Your task to perform on an android device: toggle priority inbox in the gmail app Image 0: 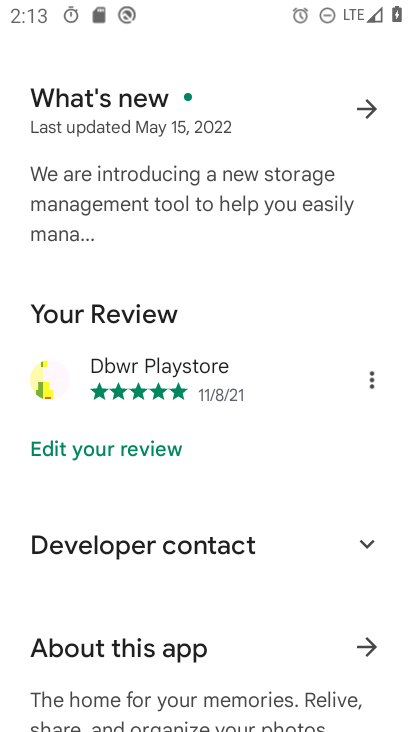
Step 0: press home button
Your task to perform on an android device: toggle priority inbox in the gmail app Image 1: 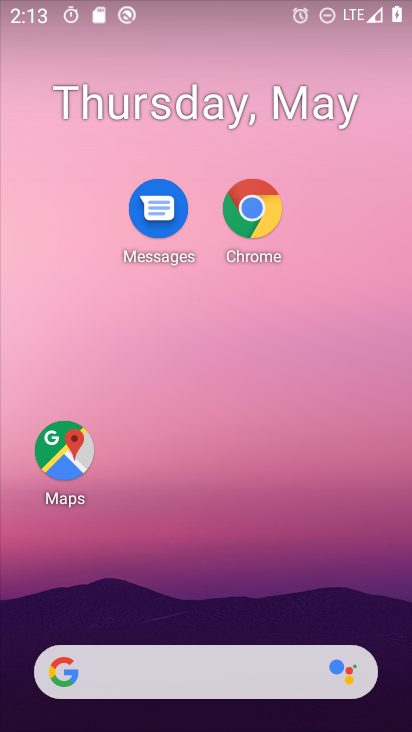
Step 1: click (187, 3)
Your task to perform on an android device: toggle priority inbox in the gmail app Image 2: 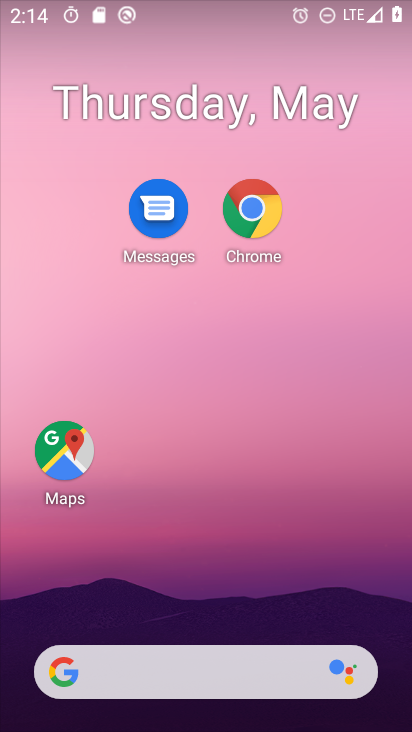
Step 2: drag from (169, 587) to (168, 137)
Your task to perform on an android device: toggle priority inbox in the gmail app Image 3: 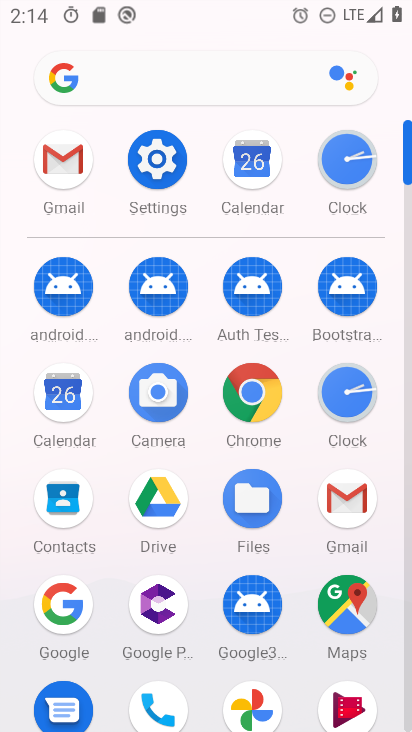
Step 3: drag from (177, 570) to (207, 144)
Your task to perform on an android device: toggle priority inbox in the gmail app Image 4: 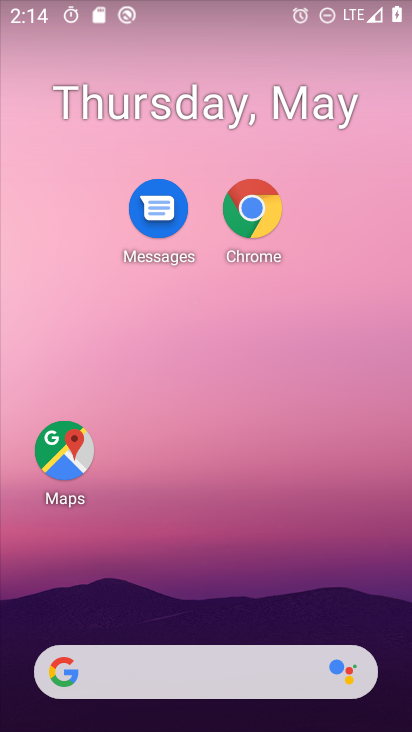
Step 4: click (48, 179)
Your task to perform on an android device: toggle priority inbox in the gmail app Image 5: 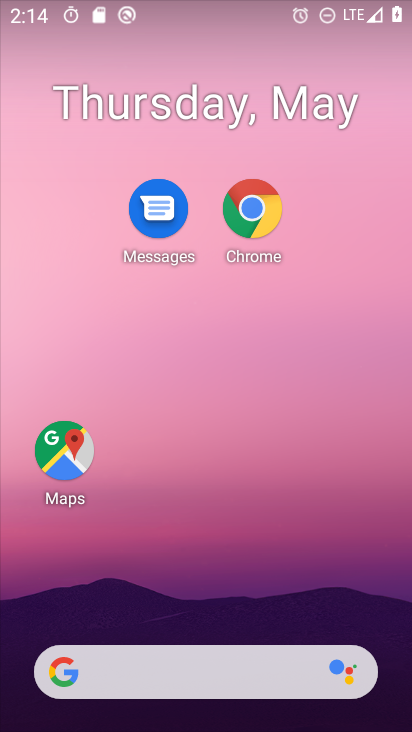
Step 5: drag from (193, 586) to (227, 69)
Your task to perform on an android device: toggle priority inbox in the gmail app Image 6: 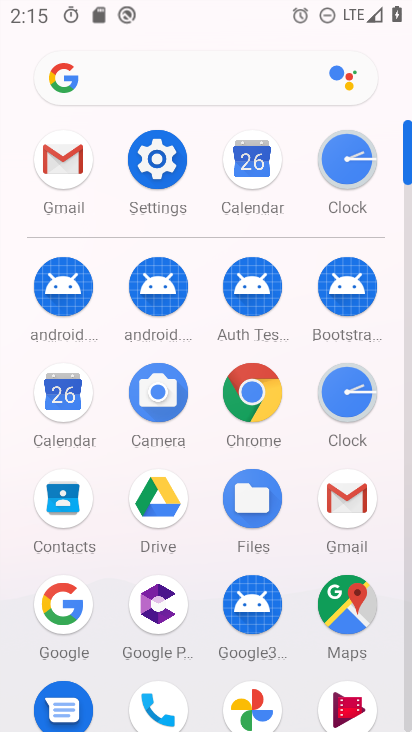
Step 6: click (54, 160)
Your task to perform on an android device: toggle priority inbox in the gmail app Image 7: 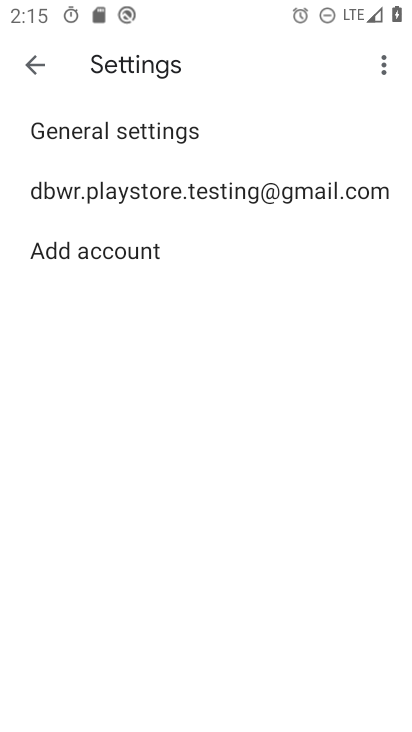
Step 7: click (95, 179)
Your task to perform on an android device: toggle priority inbox in the gmail app Image 8: 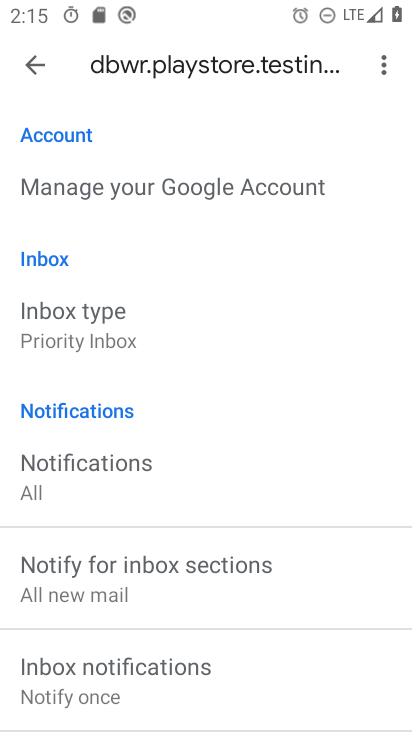
Step 8: click (91, 347)
Your task to perform on an android device: toggle priority inbox in the gmail app Image 9: 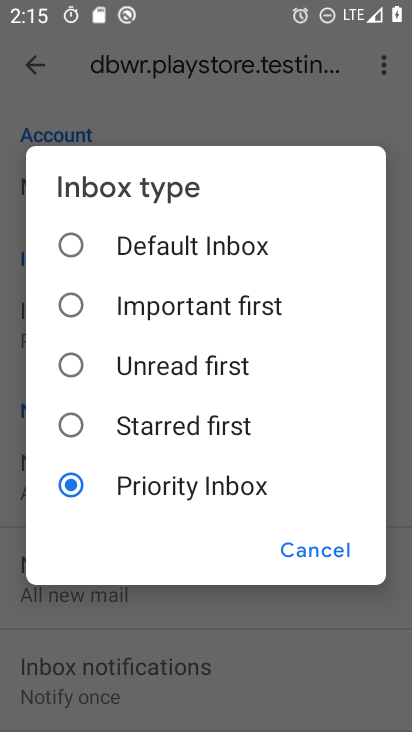
Step 9: click (69, 256)
Your task to perform on an android device: toggle priority inbox in the gmail app Image 10: 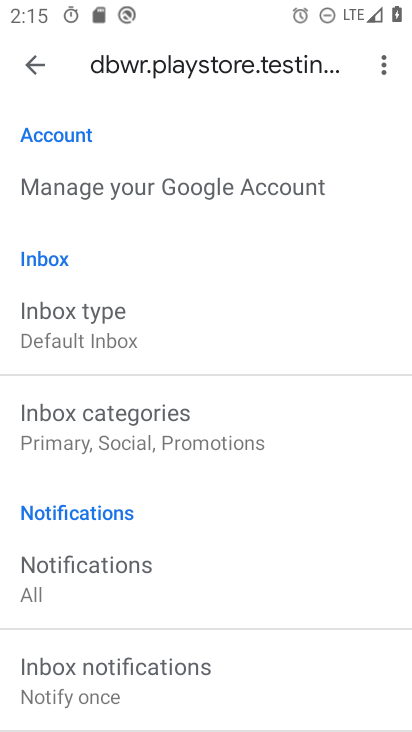
Step 10: task complete